Your task to perform on an android device: turn off translation in the chrome app Image 0: 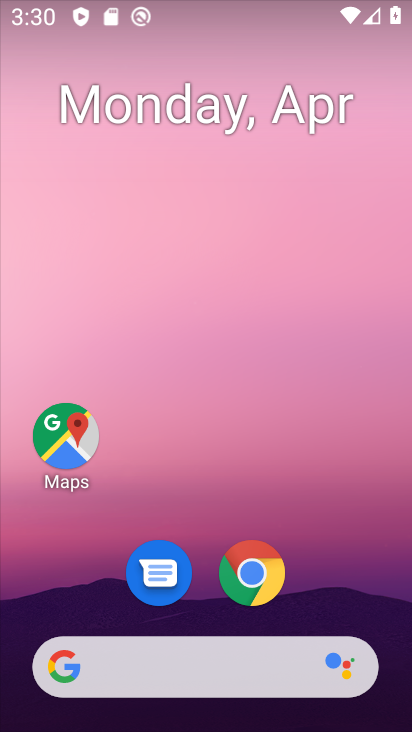
Step 0: drag from (352, 575) to (361, 88)
Your task to perform on an android device: turn off translation in the chrome app Image 1: 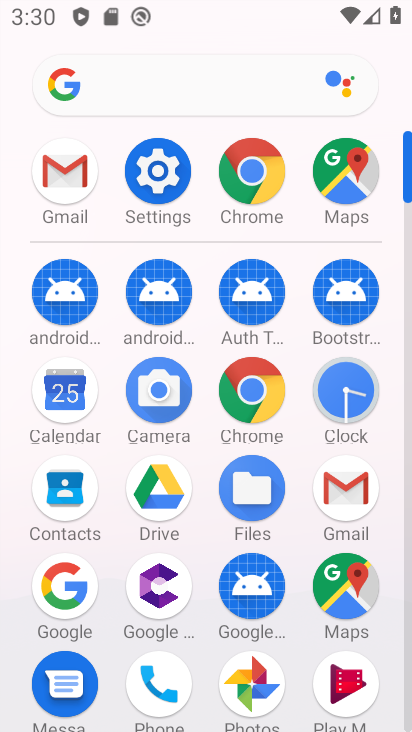
Step 1: click (258, 156)
Your task to perform on an android device: turn off translation in the chrome app Image 2: 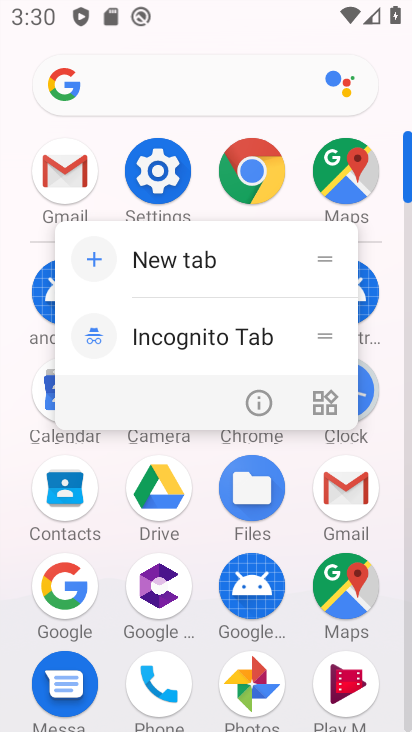
Step 2: click (258, 156)
Your task to perform on an android device: turn off translation in the chrome app Image 3: 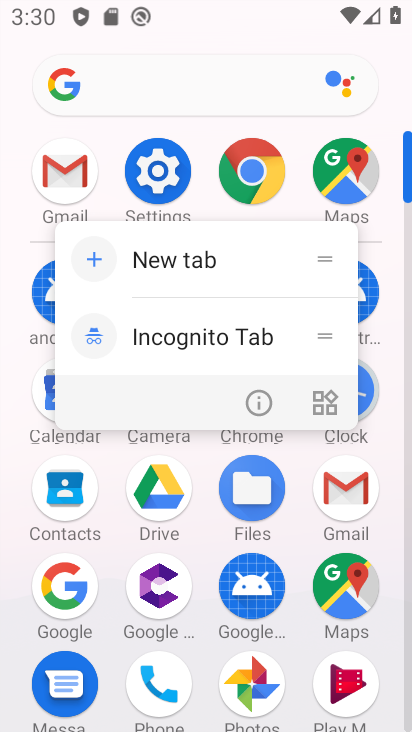
Step 3: click (261, 174)
Your task to perform on an android device: turn off translation in the chrome app Image 4: 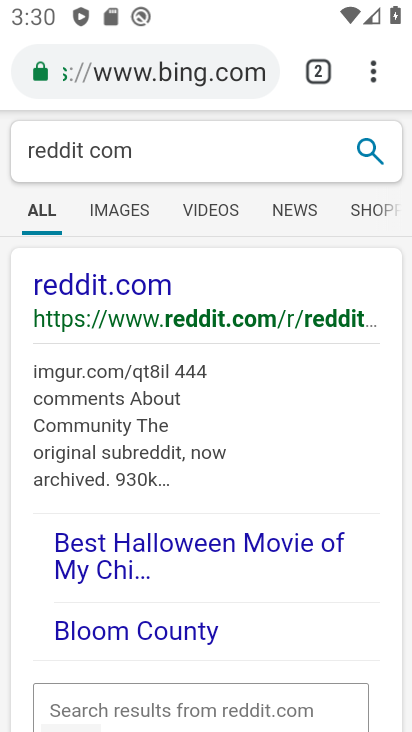
Step 4: click (374, 76)
Your task to perform on an android device: turn off translation in the chrome app Image 5: 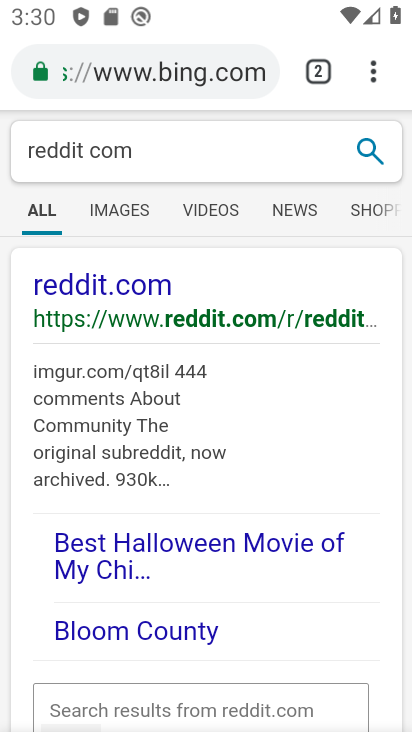
Step 5: click (372, 67)
Your task to perform on an android device: turn off translation in the chrome app Image 6: 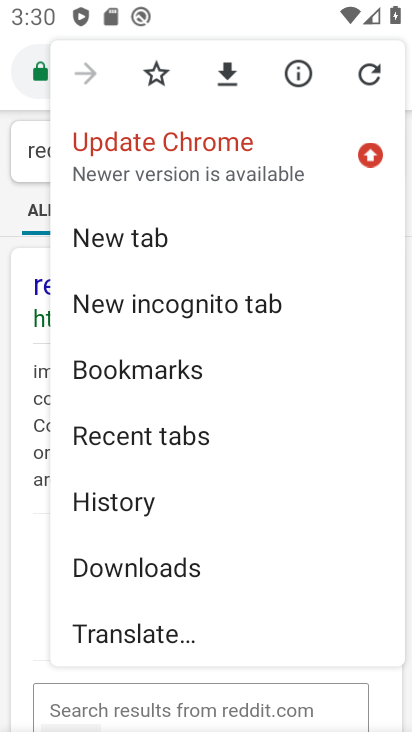
Step 6: drag from (295, 567) to (303, 286)
Your task to perform on an android device: turn off translation in the chrome app Image 7: 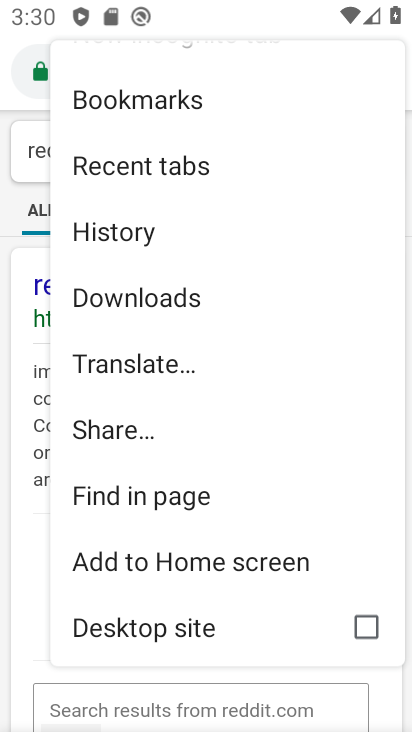
Step 7: drag from (283, 551) to (274, 421)
Your task to perform on an android device: turn off translation in the chrome app Image 8: 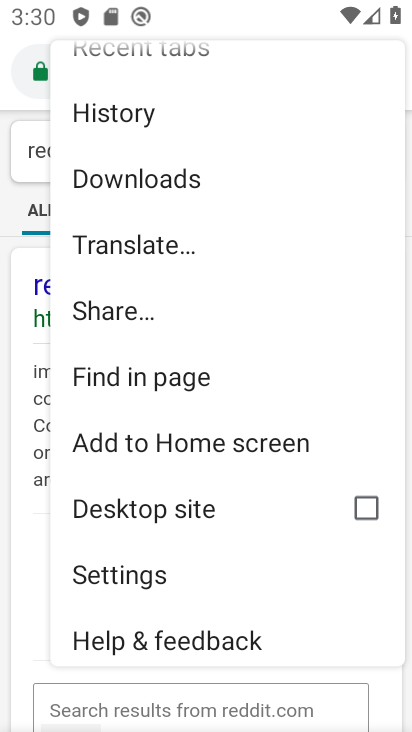
Step 8: click (175, 575)
Your task to perform on an android device: turn off translation in the chrome app Image 9: 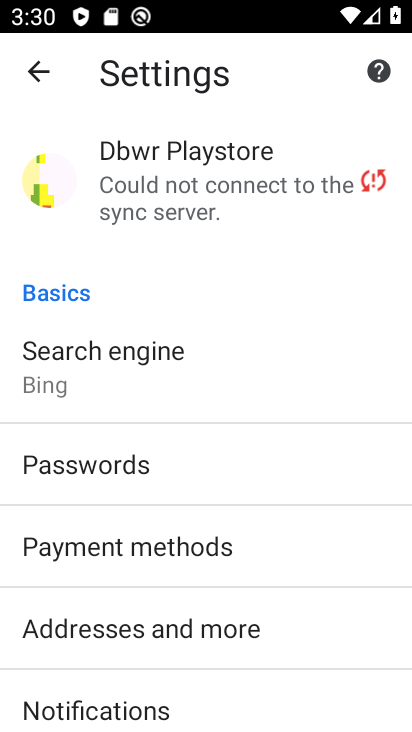
Step 9: drag from (317, 614) to (318, 502)
Your task to perform on an android device: turn off translation in the chrome app Image 10: 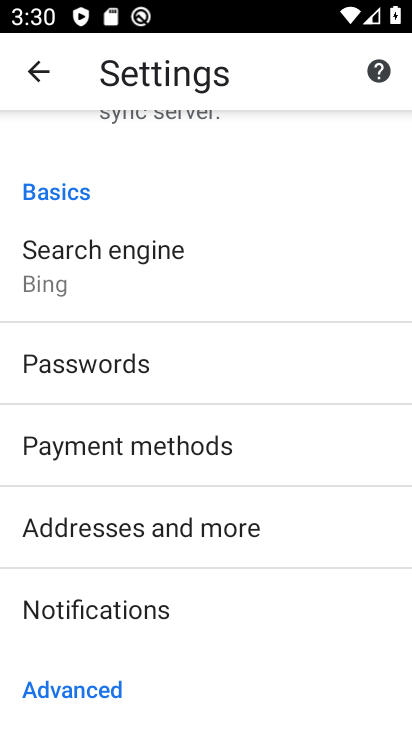
Step 10: drag from (309, 627) to (309, 520)
Your task to perform on an android device: turn off translation in the chrome app Image 11: 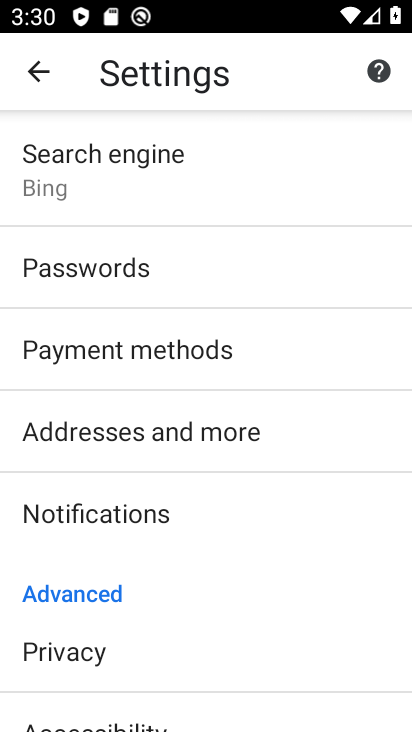
Step 11: drag from (304, 627) to (302, 487)
Your task to perform on an android device: turn off translation in the chrome app Image 12: 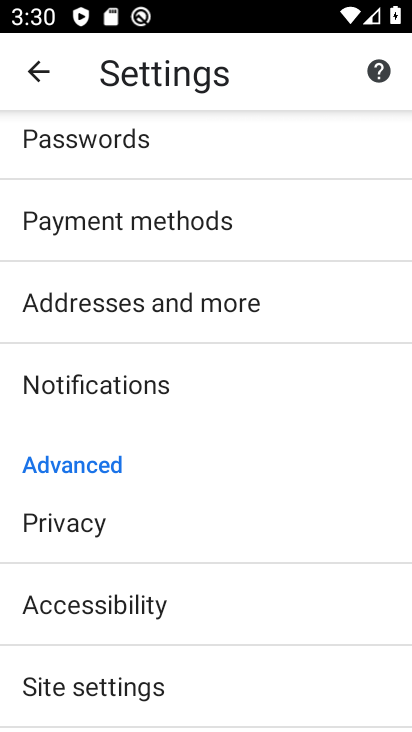
Step 12: drag from (286, 651) to (290, 505)
Your task to perform on an android device: turn off translation in the chrome app Image 13: 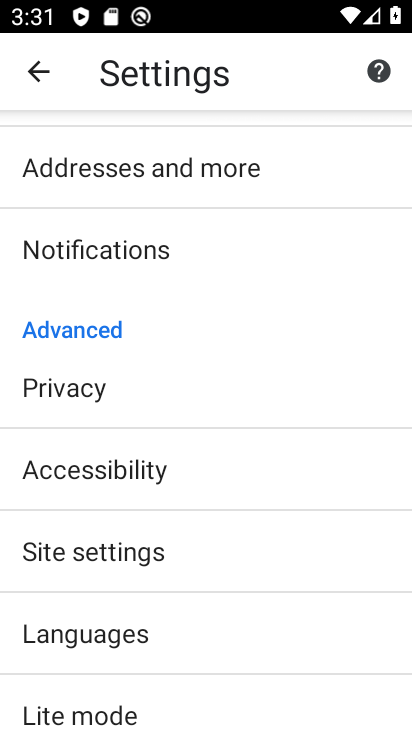
Step 13: drag from (297, 648) to (283, 514)
Your task to perform on an android device: turn off translation in the chrome app Image 14: 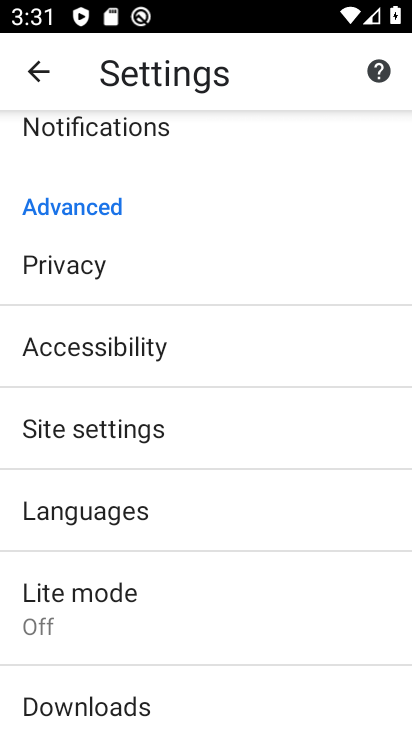
Step 14: drag from (272, 609) to (275, 516)
Your task to perform on an android device: turn off translation in the chrome app Image 15: 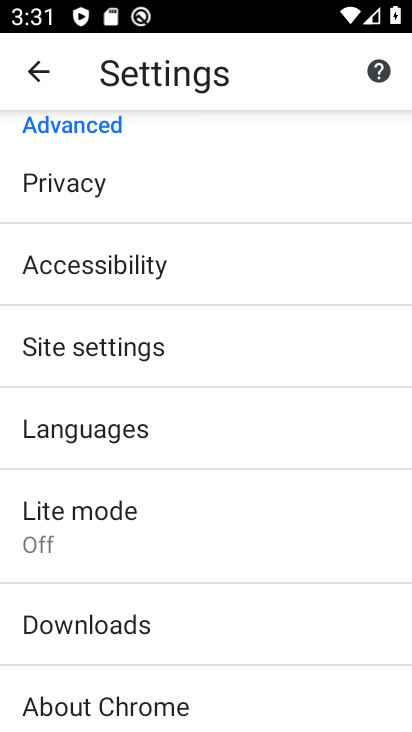
Step 15: click (201, 438)
Your task to perform on an android device: turn off translation in the chrome app Image 16: 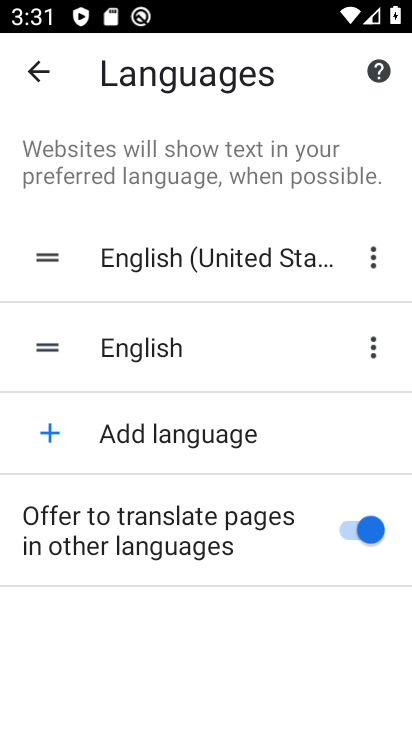
Step 16: click (354, 531)
Your task to perform on an android device: turn off translation in the chrome app Image 17: 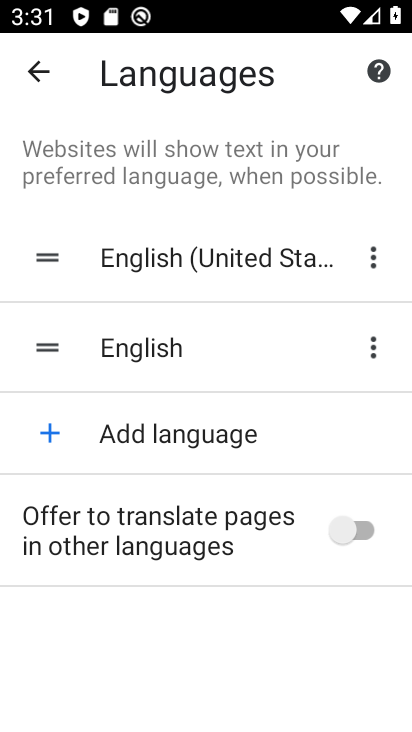
Step 17: task complete